Your task to perform on an android device: What's the weather going to be tomorrow? Image 0: 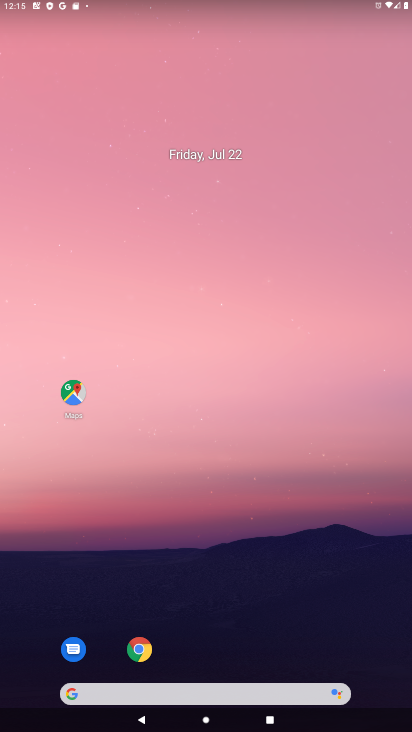
Step 0: drag from (331, 621) to (96, 103)
Your task to perform on an android device: What's the weather going to be tomorrow? Image 1: 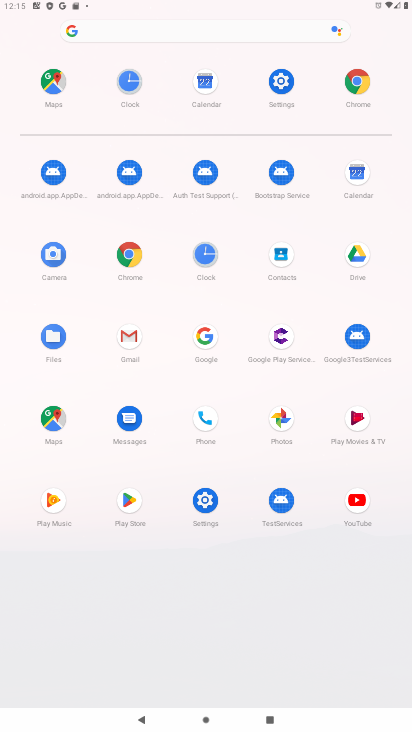
Step 1: click (357, 178)
Your task to perform on an android device: What's the weather going to be tomorrow? Image 2: 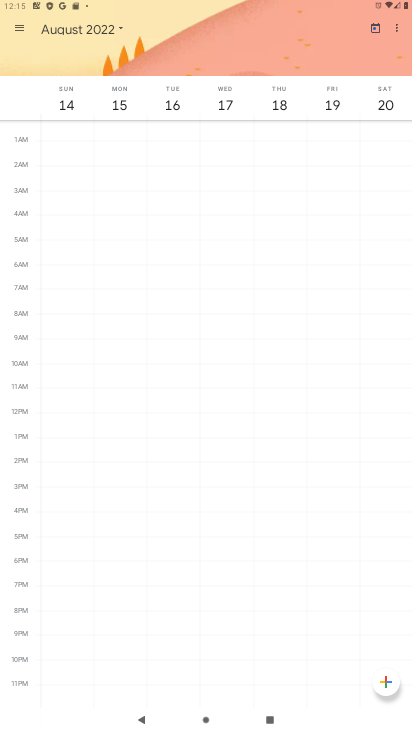
Step 2: press home button
Your task to perform on an android device: What's the weather going to be tomorrow? Image 3: 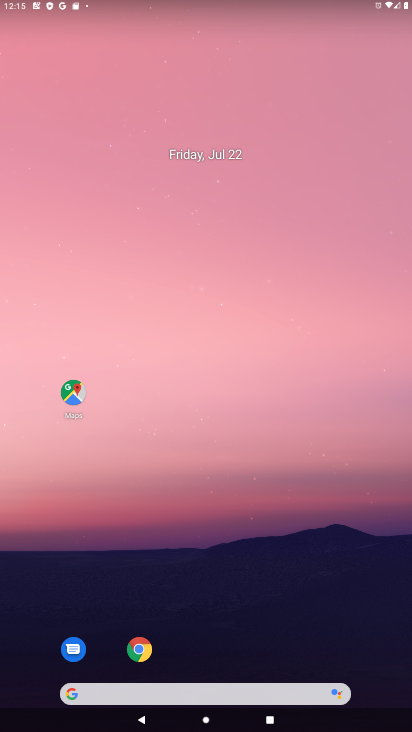
Step 3: drag from (321, 631) to (186, 0)
Your task to perform on an android device: What's the weather going to be tomorrow? Image 4: 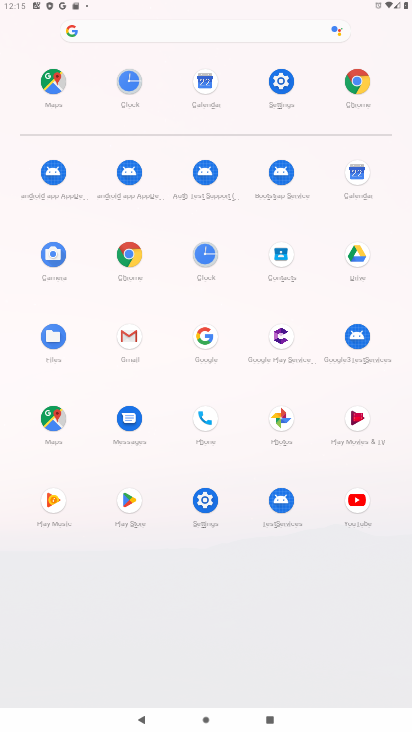
Step 4: click (130, 252)
Your task to perform on an android device: What's the weather going to be tomorrow? Image 5: 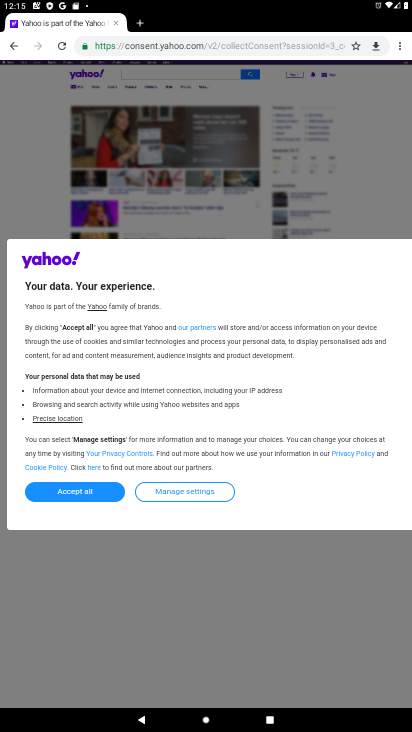
Step 5: click (209, 46)
Your task to perform on an android device: What's the weather going to be tomorrow? Image 6: 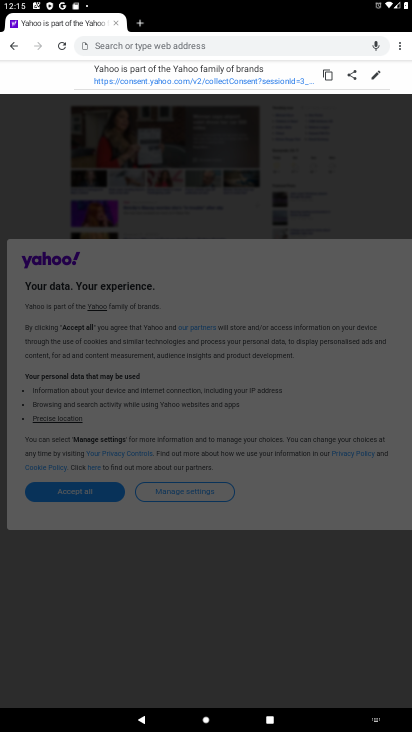
Step 6: type "weather"
Your task to perform on an android device: What's the weather going to be tomorrow? Image 7: 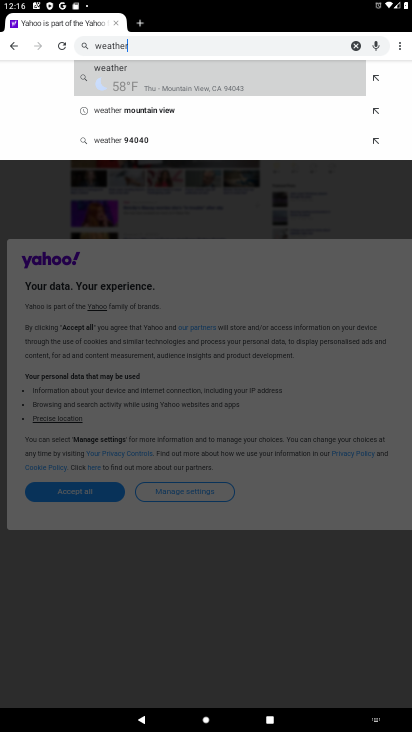
Step 7: click (114, 82)
Your task to perform on an android device: What's the weather going to be tomorrow? Image 8: 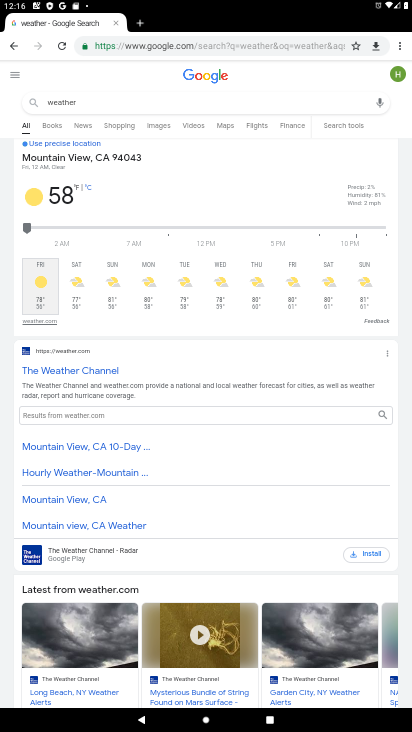
Step 8: click (65, 280)
Your task to perform on an android device: What's the weather going to be tomorrow? Image 9: 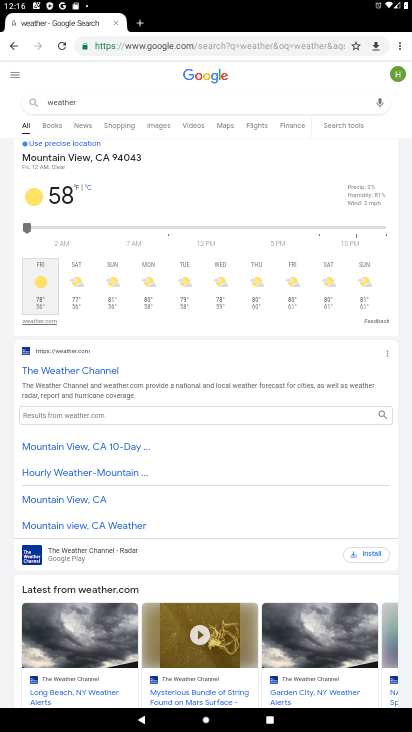
Step 9: click (72, 280)
Your task to perform on an android device: What's the weather going to be tomorrow? Image 10: 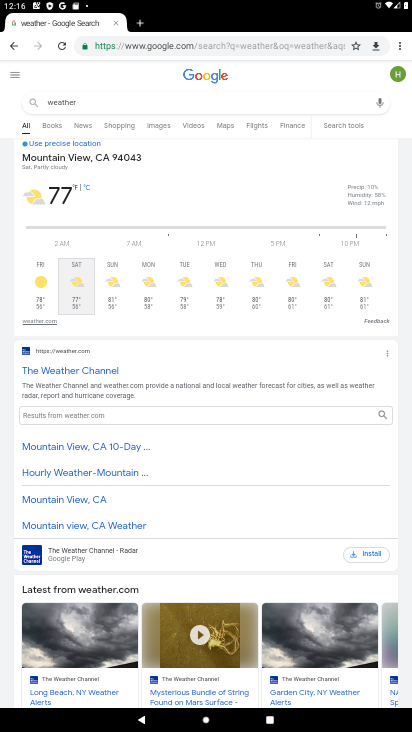
Step 10: task complete